Your task to perform on an android device: Find coffee shops on Maps Image 0: 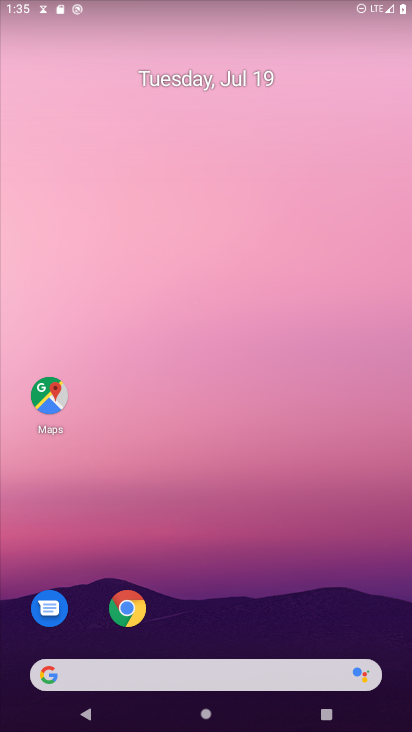
Step 0: drag from (257, 616) to (327, 41)
Your task to perform on an android device: Find coffee shops on Maps Image 1: 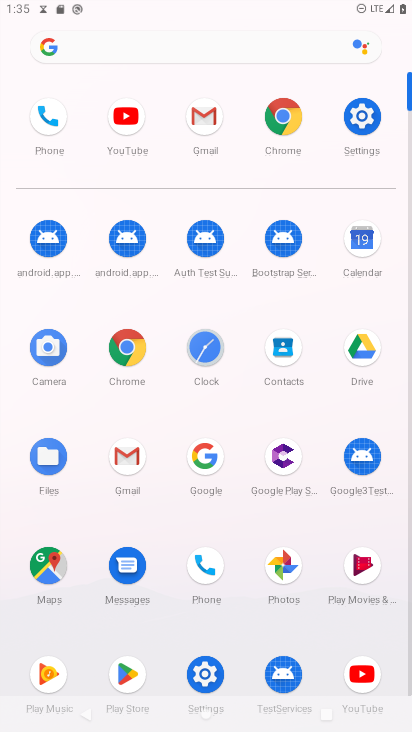
Step 1: click (53, 568)
Your task to perform on an android device: Find coffee shops on Maps Image 2: 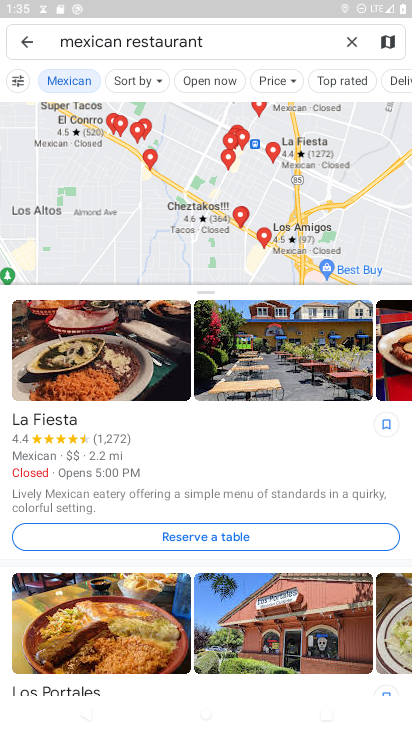
Step 2: click (347, 40)
Your task to perform on an android device: Find coffee shops on Maps Image 3: 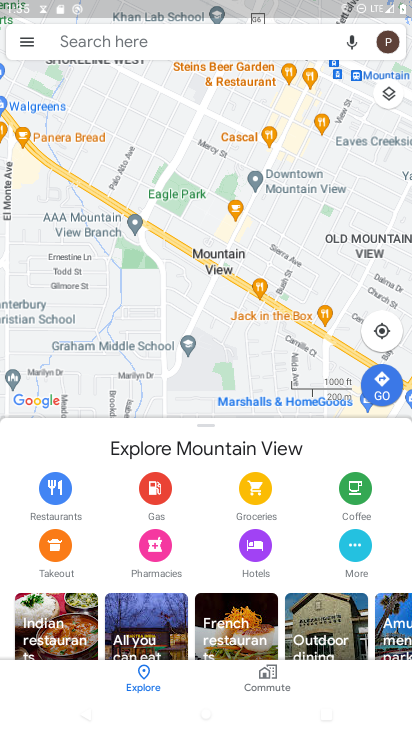
Step 3: click (262, 43)
Your task to perform on an android device: Find coffee shops on Maps Image 4: 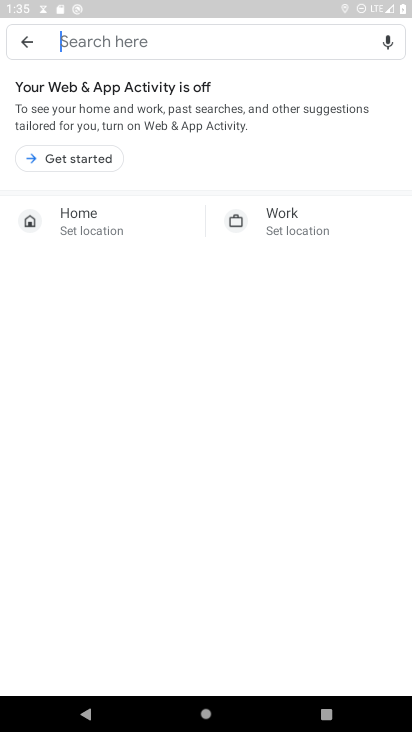
Step 4: type "coffee shops"
Your task to perform on an android device: Find coffee shops on Maps Image 5: 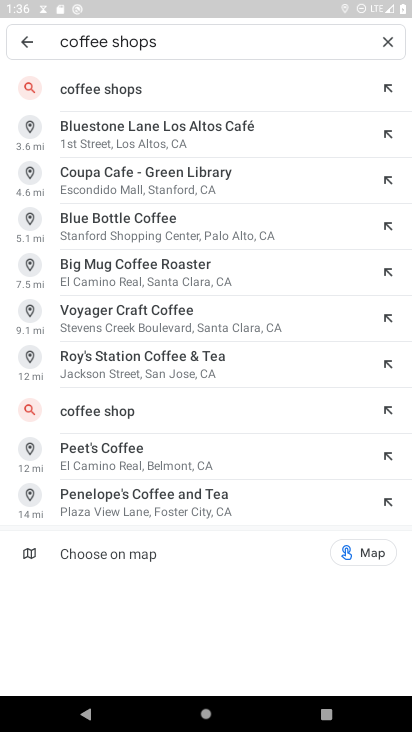
Step 5: click (107, 83)
Your task to perform on an android device: Find coffee shops on Maps Image 6: 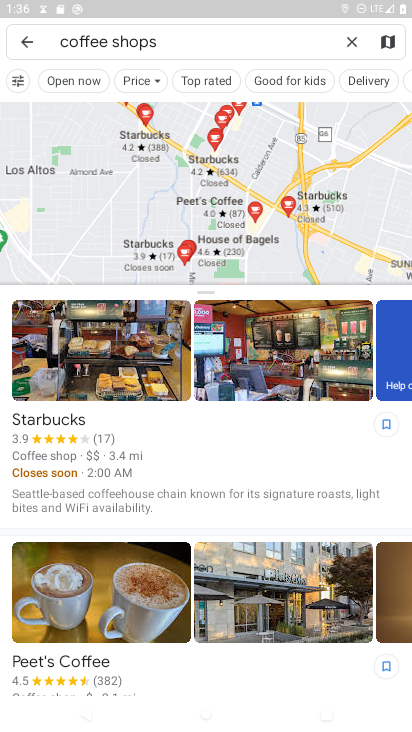
Step 6: task complete